Your task to perform on an android device: refresh tabs in the chrome app Image 0: 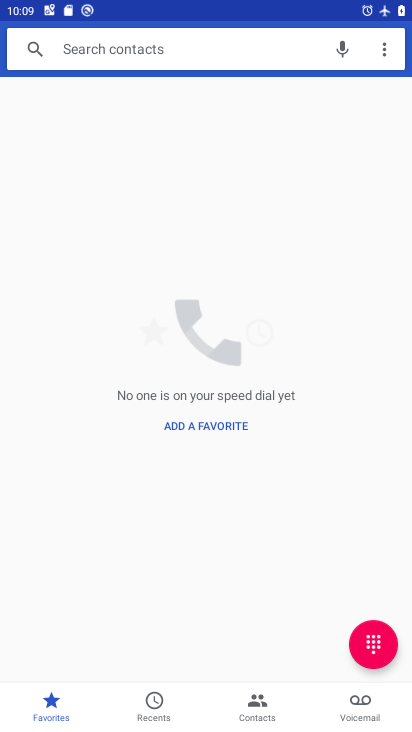
Step 0: press home button
Your task to perform on an android device: refresh tabs in the chrome app Image 1: 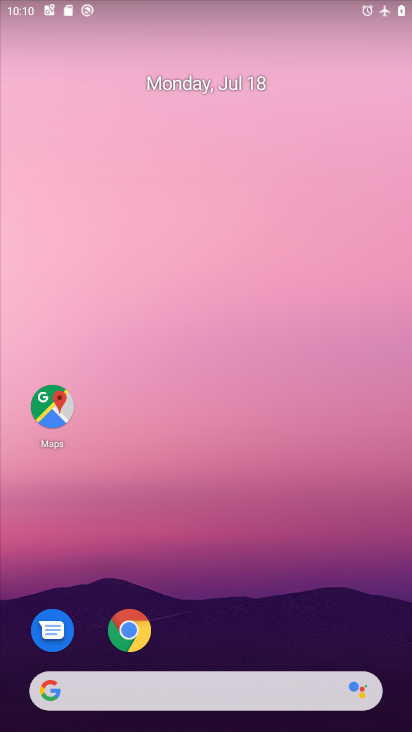
Step 1: click (140, 626)
Your task to perform on an android device: refresh tabs in the chrome app Image 2: 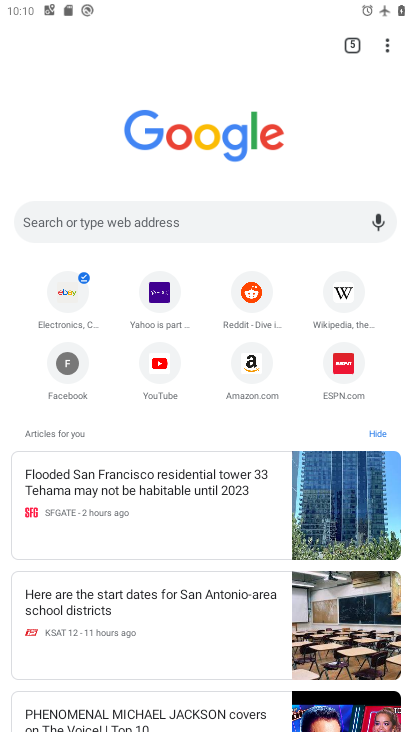
Step 2: click (383, 48)
Your task to perform on an android device: refresh tabs in the chrome app Image 3: 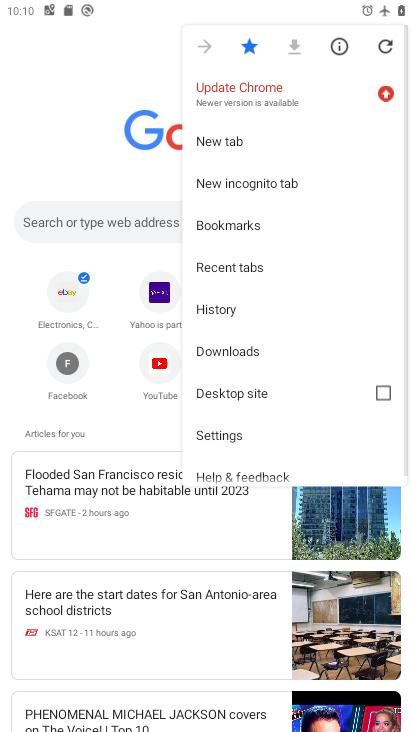
Step 3: click (387, 44)
Your task to perform on an android device: refresh tabs in the chrome app Image 4: 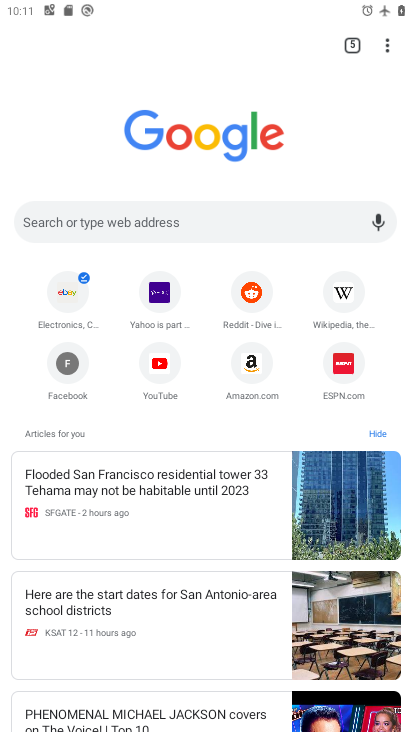
Step 4: task complete